Your task to perform on an android device: Add macbook air to the cart on amazon, then select checkout. Image 0: 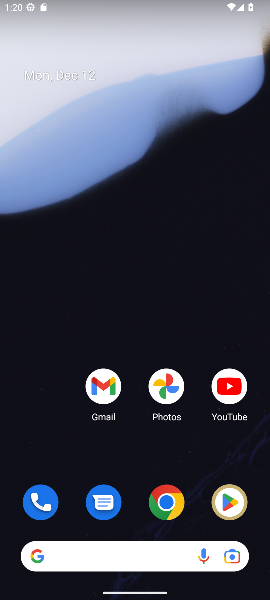
Step 0: click (173, 516)
Your task to perform on an android device: Add macbook air to the cart on amazon, then select checkout. Image 1: 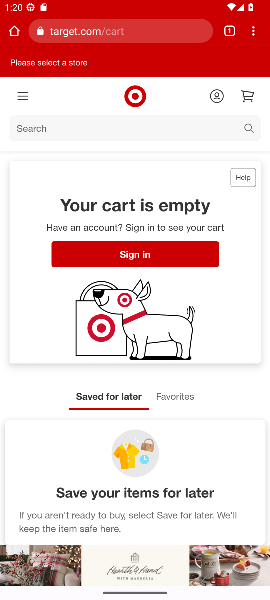
Step 1: click (155, 32)
Your task to perform on an android device: Add macbook air to the cart on amazon, then select checkout. Image 2: 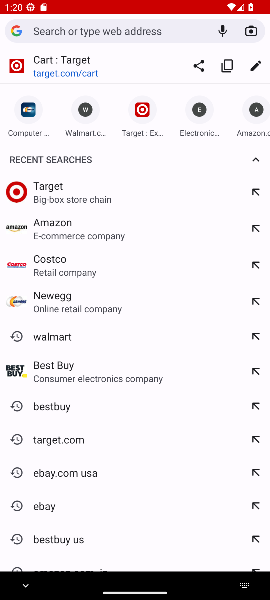
Step 2: click (93, 227)
Your task to perform on an android device: Add macbook air to the cart on amazon, then select checkout. Image 3: 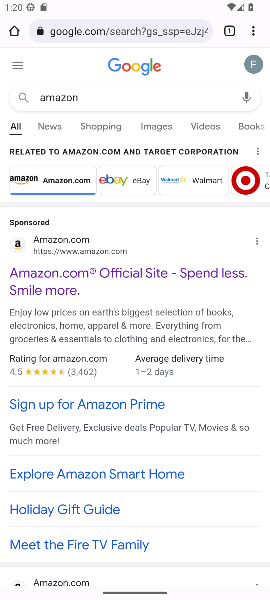
Step 3: click (72, 270)
Your task to perform on an android device: Add macbook air to the cart on amazon, then select checkout. Image 4: 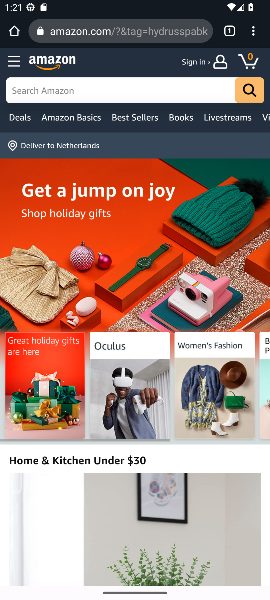
Step 4: click (73, 90)
Your task to perform on an android device: Add macbook air to the cart on amazon, then select checkout. Image 5: 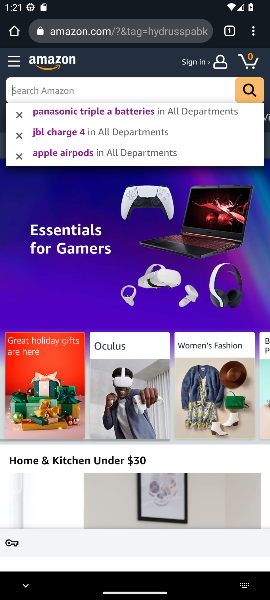
Step 5: type "macbookbook air"
Your task to perform on an android device: Add macbook air to the cart on amazon, then select checkout. Image 6: 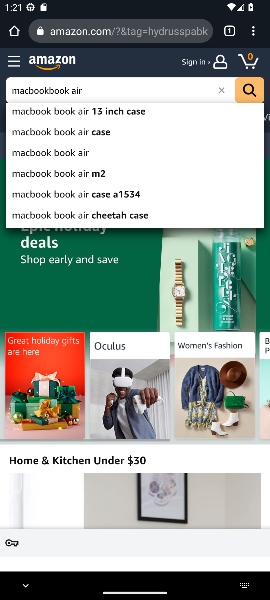
Step 6: click (255, 86)
Your task to perform on an android device: Add macbook air to the cart on amazon, then select checkout. Image 7: 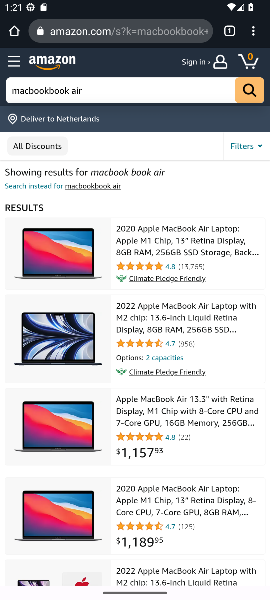
Step 7: click (128, 247)
Your task to perform on an android device: Add macbook air to the cart on amazon, then select checkout. Image 8: 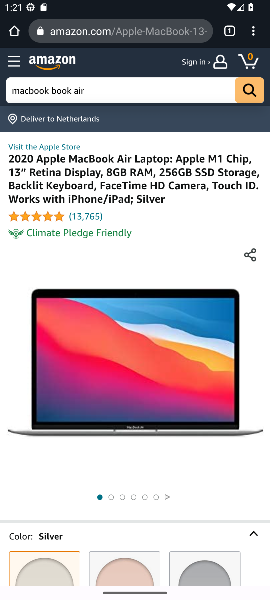
Step 8: drag from (218, 509) to (165, 151)
Your task to perform on an android device: Add macbook air to the cart on amazon, then select checkout. Image 9: 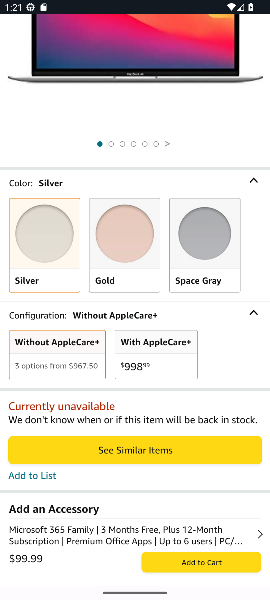
Step 9: click (203, 560)
Your task to perform on an android device: Add macbook air to the cart on amazon, then select checkout. Image 10: 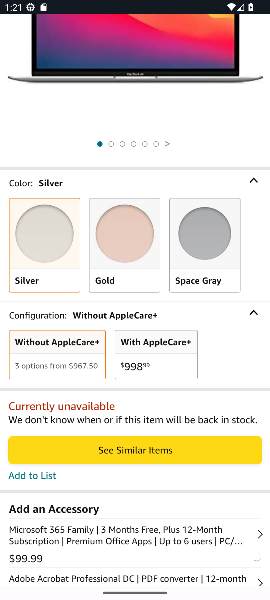
Step 10: task complete